Your task to perform on an android device: turn smart compose on in the gmail app Image 0: 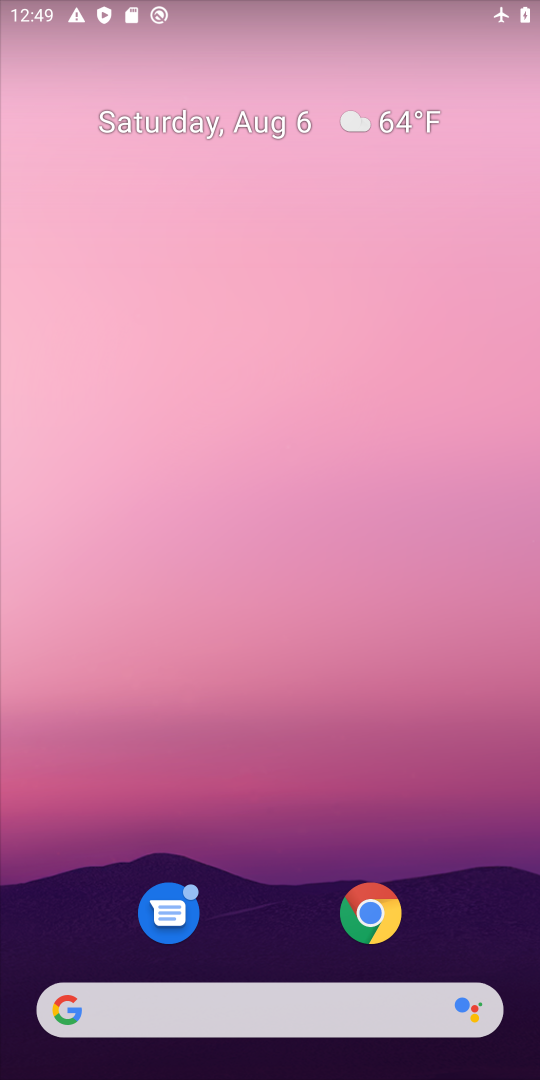
Step 0: press home button
Your task to perform on an android device: turn smart compose on in the gmail app Image 1: 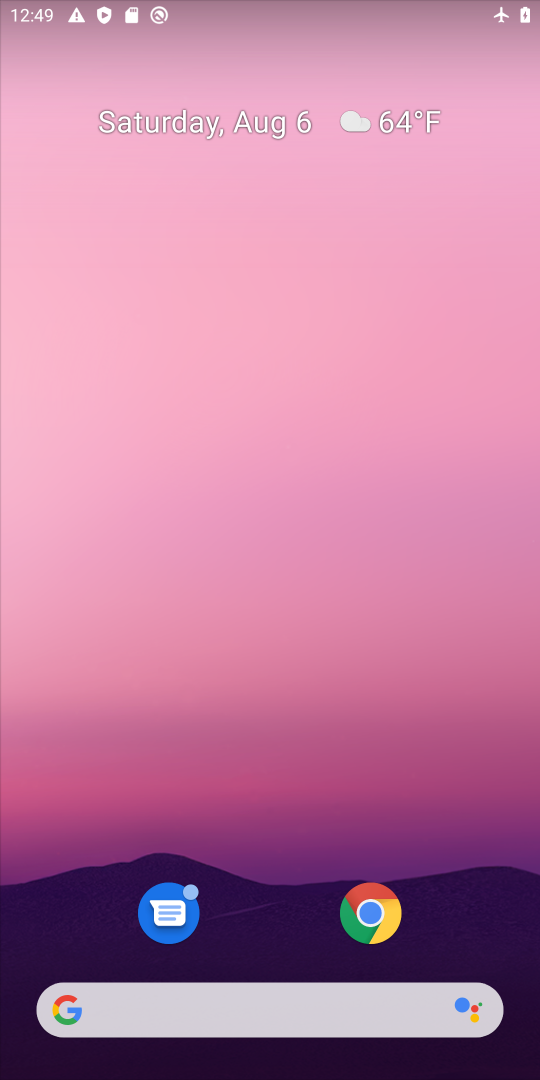
Step 1: drag from (277, 938) to (296, 268)
Your task to perform on an android device: turn smart compose on in the gmail app Image 2: 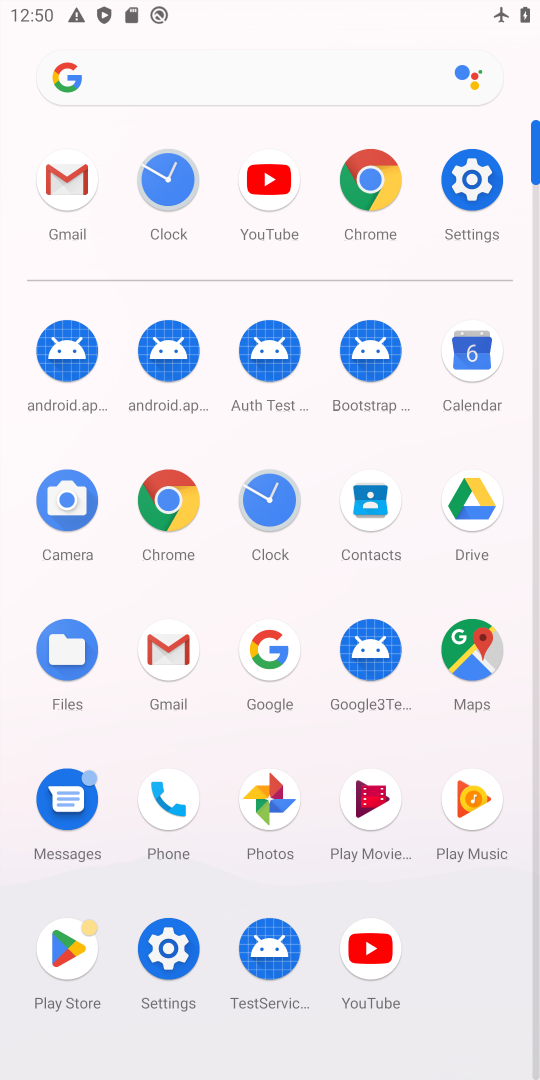
Step 2: click (159, 666)
Your task to perform on an android device: turn smart compose on in the gmail app Image 3: 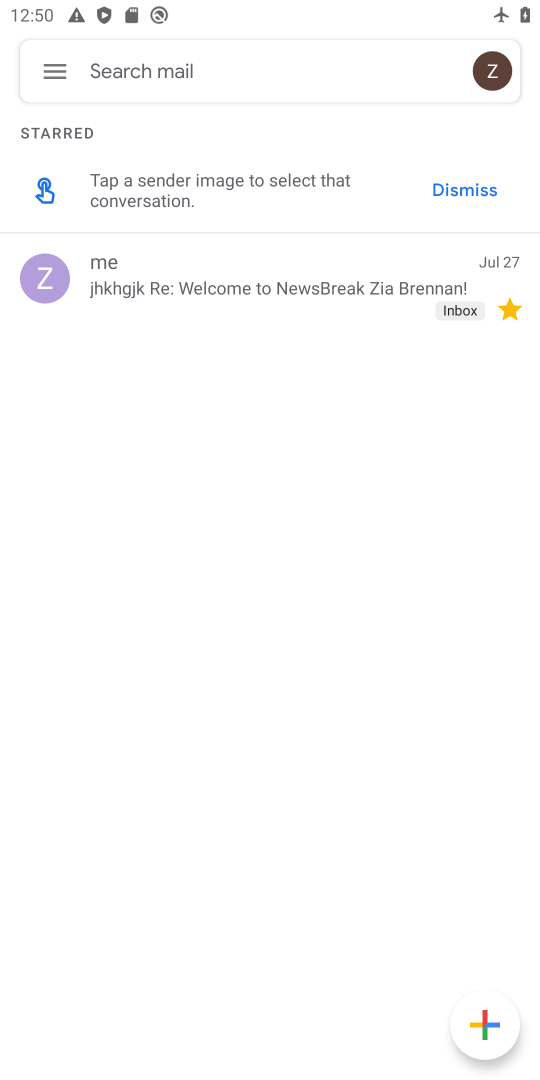
Step 3: click (44, 64)
Your task to perform on an android device: turn smart compose on in the gmail app Image 4: 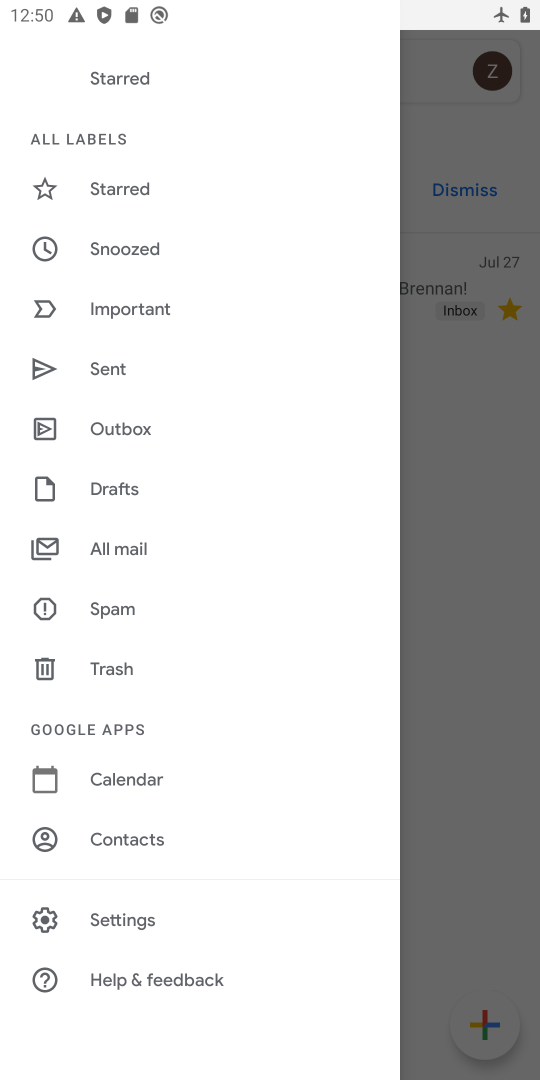
Step 4: click (127, 927)
Your task to perform on an android device: turn smart compose on in the gmail app Image 5: 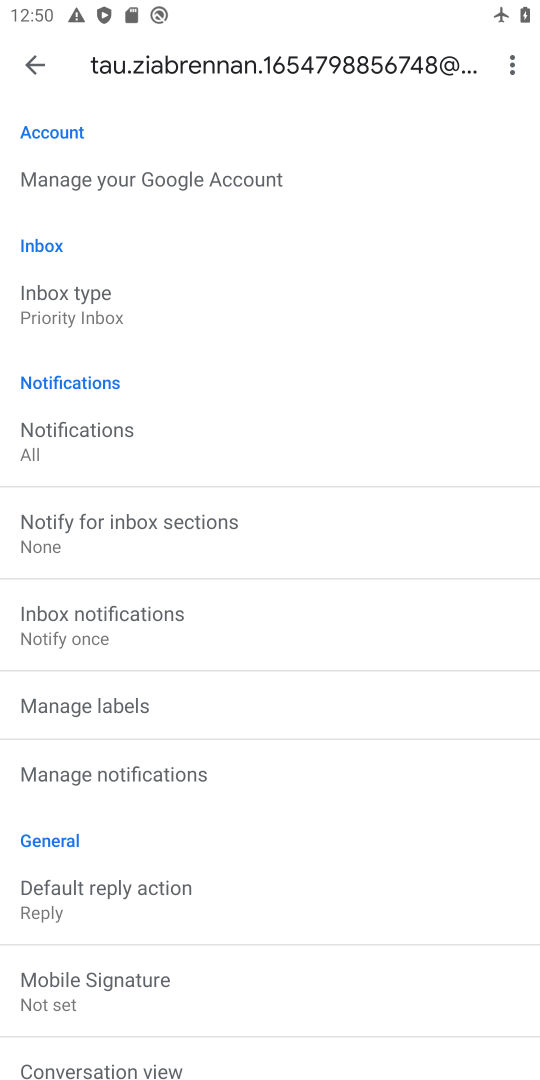
Step 5: task complete